Your task to perform on an android device: create a new album in the google photos Image 0: 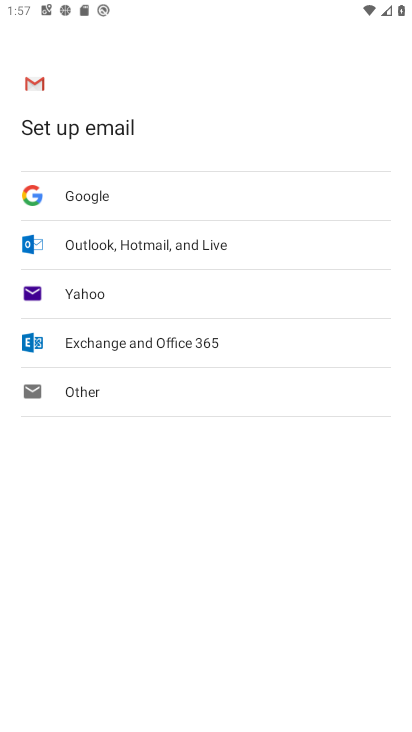
Step 0: press home button
Your task to perform on an android device: create a new album in the google photos Image 1: 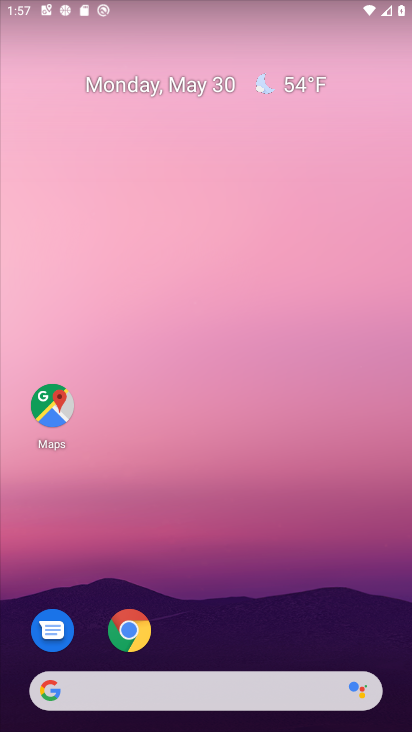
Step 1: drag from (182, 692) to (324, 195)
Your task to perform on an android device: create a new album in the google photos Image 2: 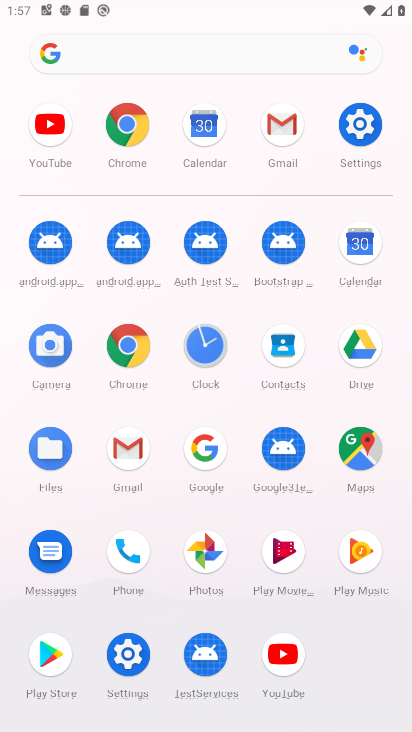
Step 2: click (205, 551)
Your task to perform on an android device: create a new album in the google photos Image 3: 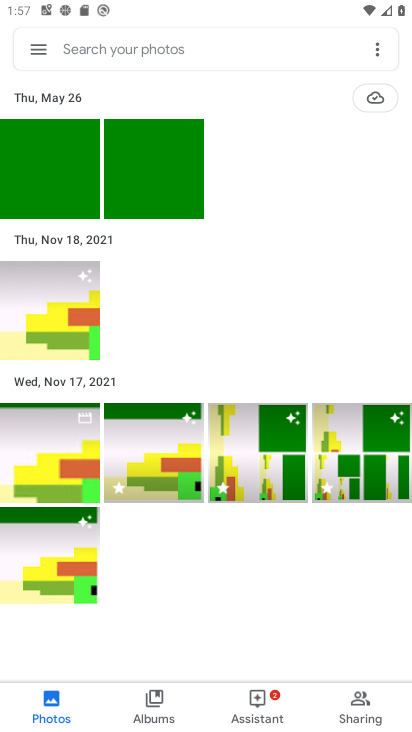
Step 3: click (164, 720)
Your task to perform on an android device: create a new album in the google photos Image 4: 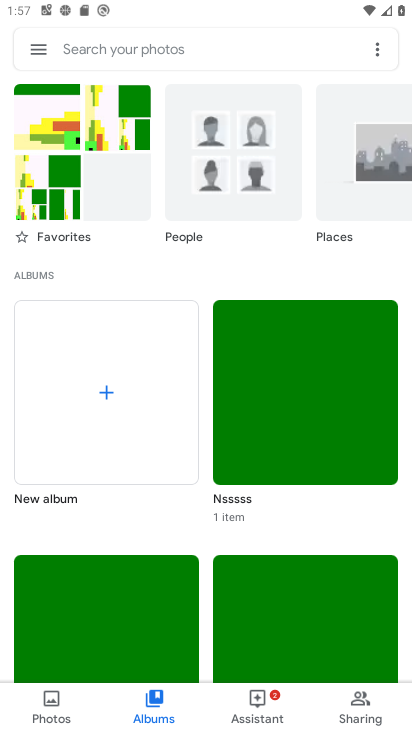
Step 4: click (101, 383)
Your task to perform on an android device: create a new album in the google photos Image 5: 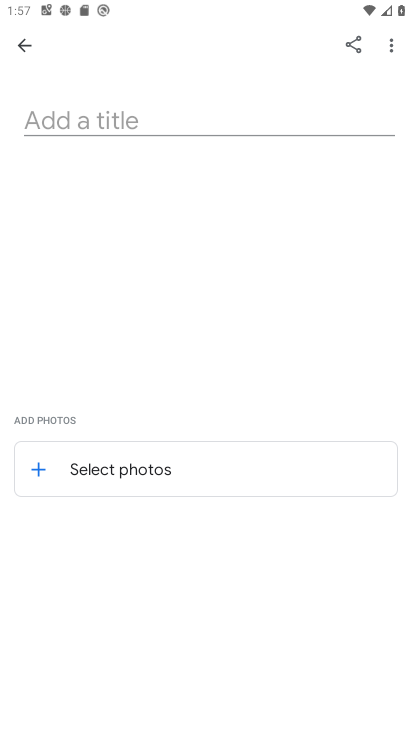
Step 5: click (196, 484)
Your task to perform on an android device: create a new album in the google photos Image 6: 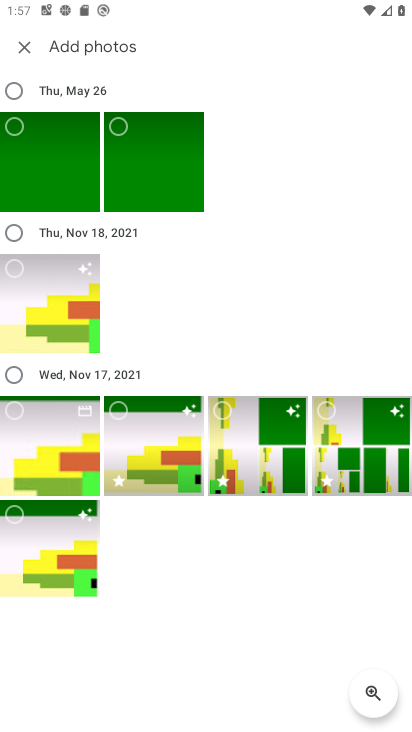
Step 6: click (36, 147)
Your task to perform on an android device: create a new album in the google photos Image 7: 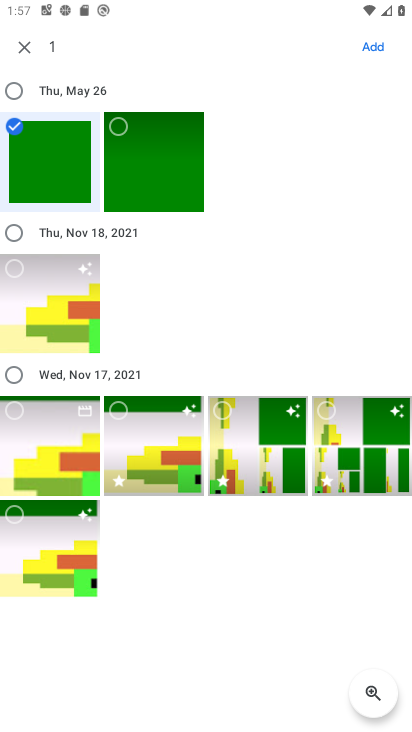
Step 7: click (141, 160)
Your task to perform on an android device: create a new album in the google photos Image 8: 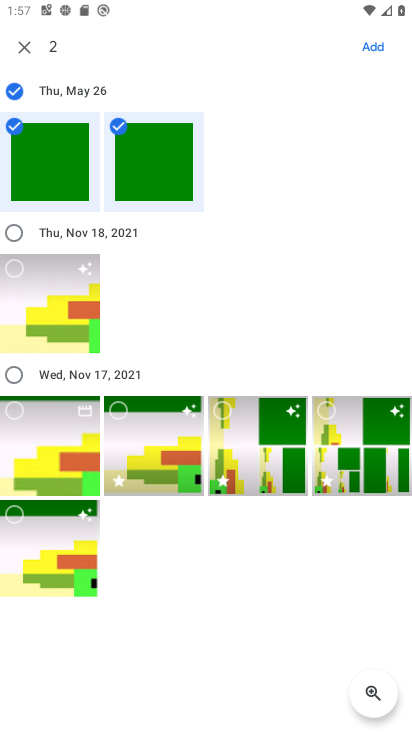
Step 8: click (60, 292)
Your task to perform on an android device: create a new album in the google photos Image 9: 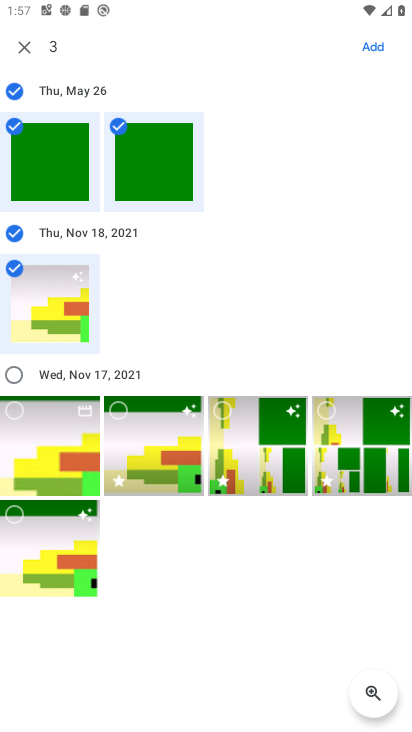
Step 9: click (24, 461)
Your task to perform on an android device: create a new album in the google photos Image 10: 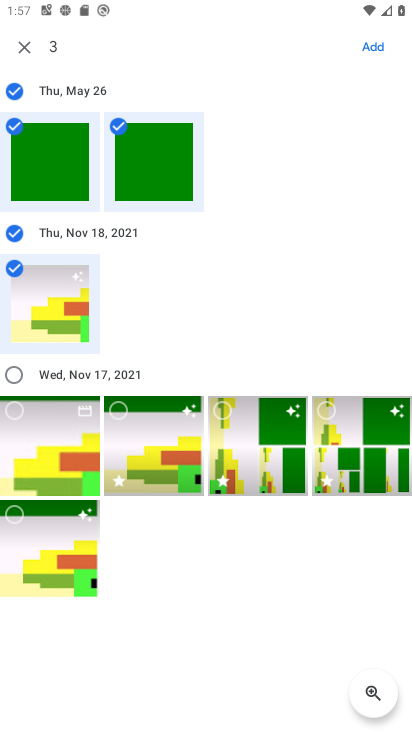
Step 10: click (161, 475)
Your task to perform on an android device: create a new album in the google photos Image 11: 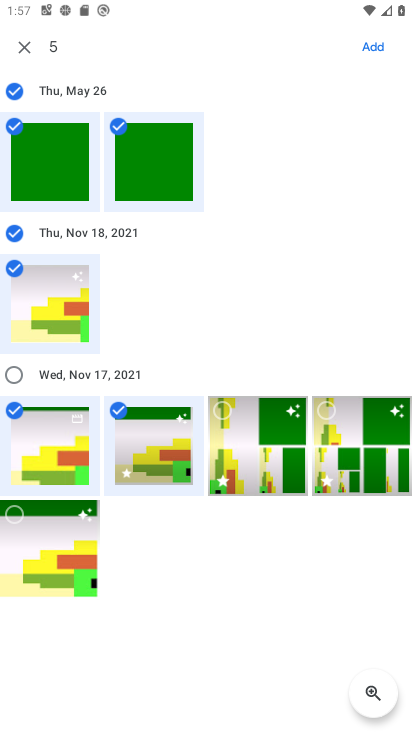
Step 11: click (371, 44)
Your task to perform on an android device: create a new album in the google photos Image 12: 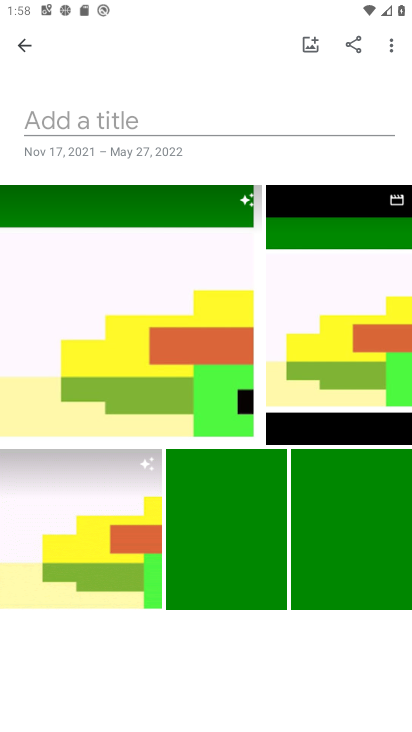
Step 12: task complete